Your task to perform on an android device: turn off smart reply in the gmail app Image 0: 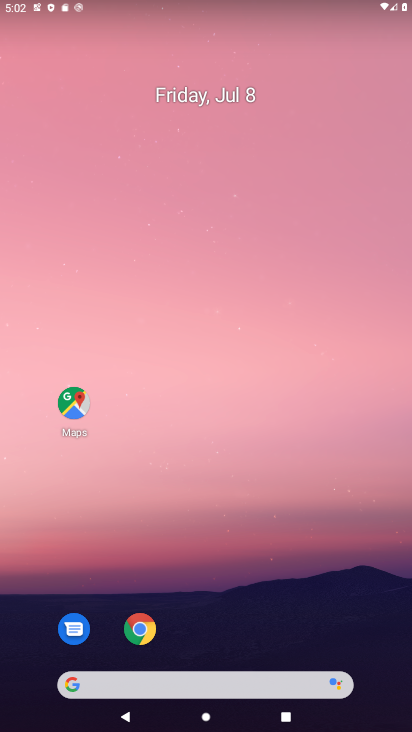
Step 0: press home button
Your task to perform on an android device: turn off smart reply in the gmail app Image 1: 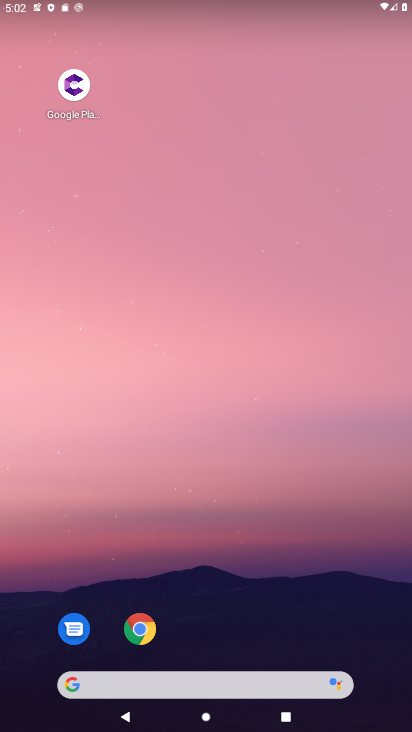
Step 1: drag from (255, 643) to (332, 109)
Your task to perform on an android device: turn off smart reply in the gmail app Image 2: 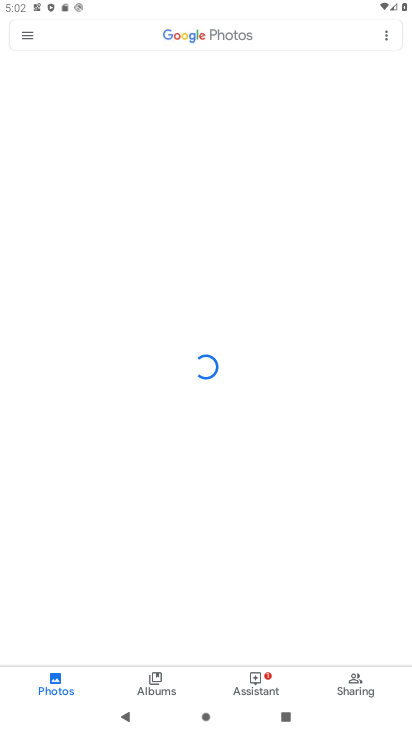
Step 2: press home button
Your task to perform on an android device: turn off smart reply in the gmail app Image 3: 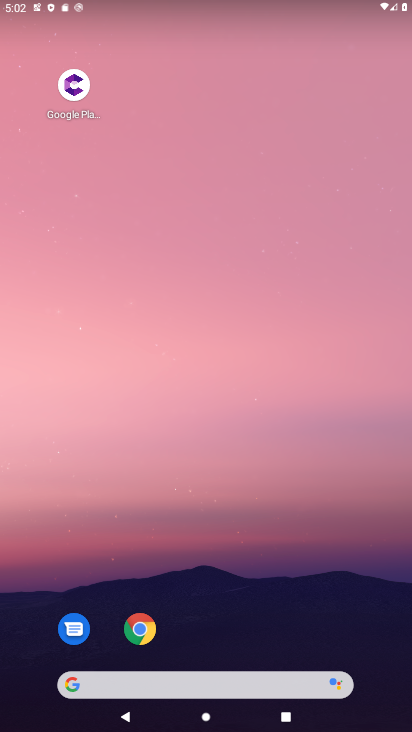
Step 3: drag from (209, 621) to (169, 34)
Your task to perform on an android device: turn off smart reply in the gmail app Image 4: 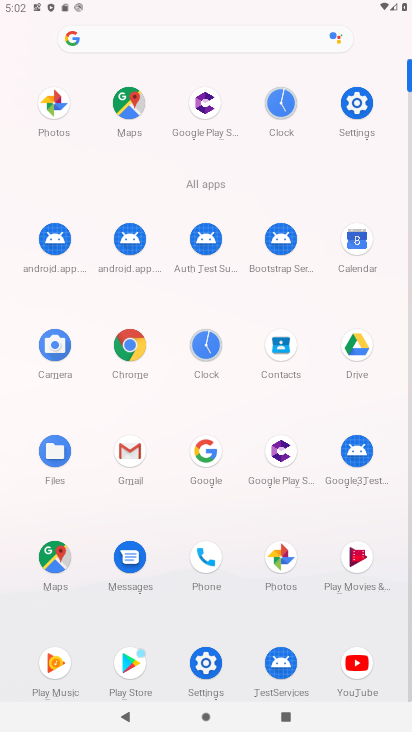
Step 4: click (132, 463)
Your task to perform on an android device: turn off smart reply in the gmail app Image 5: 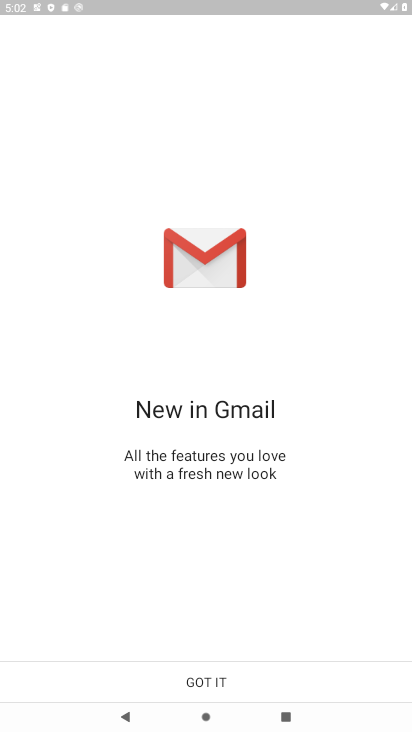
Step 5: click (194, 667)
Your task to perform on an android device: turn off smart reply in the gmail app Image 6: 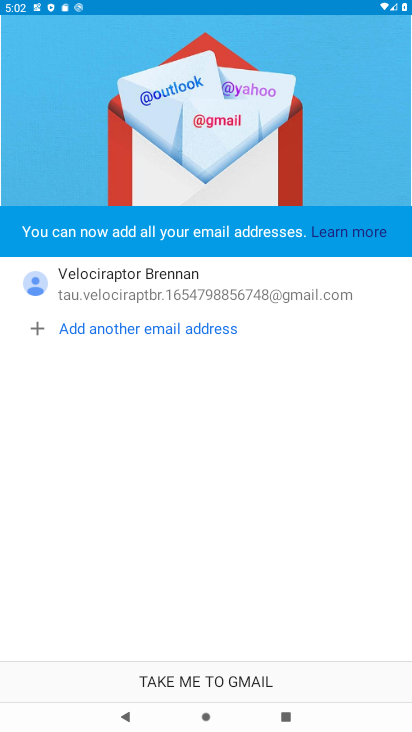
Step 6: click (209, 691)
Your task to perform on an android device: turn off smart reply in the gmail app Image 7: 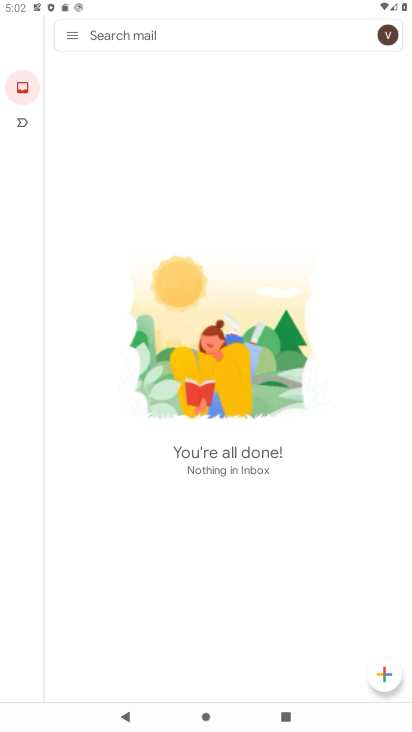
Step 7: click (64, 40)
Your task to perform on an android device: turn off smart reply in the gmail app Image 8: 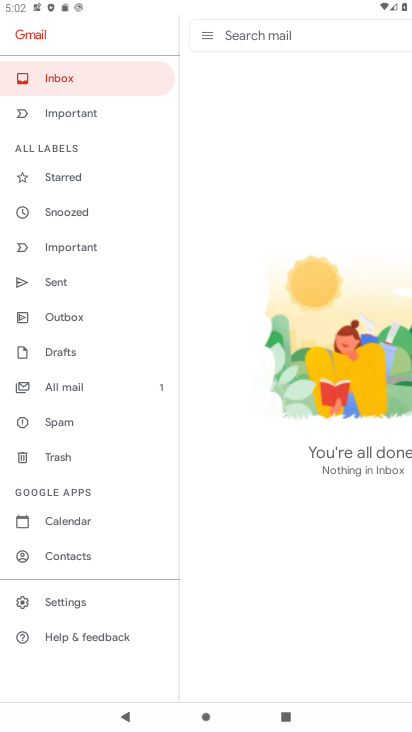
Step 8: click (74, 607)
Your task to perform on an android device: turn off smart reply in the gmail app Image 9: 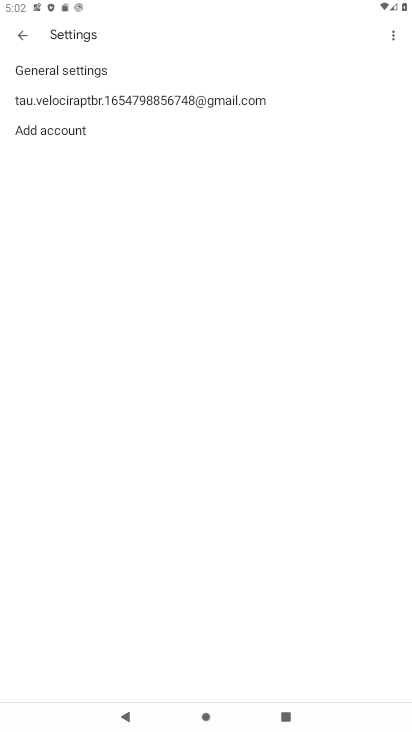
Step 9: click (79, 97)
Your task to perform on an android device: turn off smart reply in the gmail app Image 10: 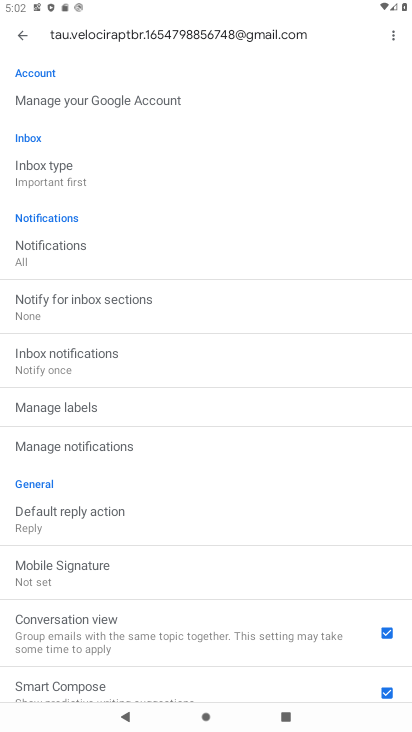
Step 10: drag from (228, 655) to (192, 310)
Your task to perform on an android device: turn off smart reply in the gmail app Image 11: 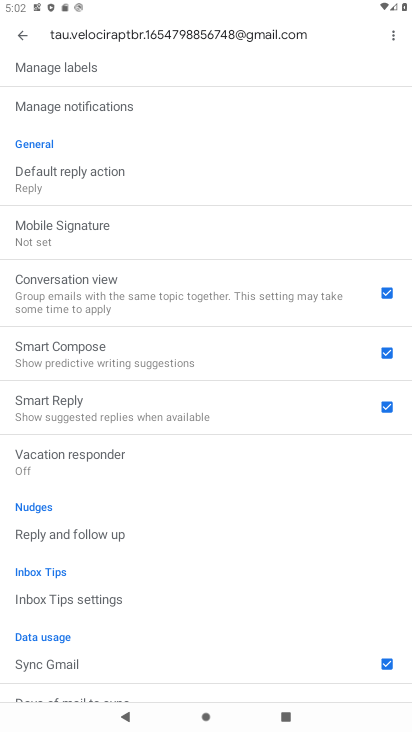
Step 11: click (386, 408)
Your task to perform on an android device: turn off smart reply in the gmail app Image 12: 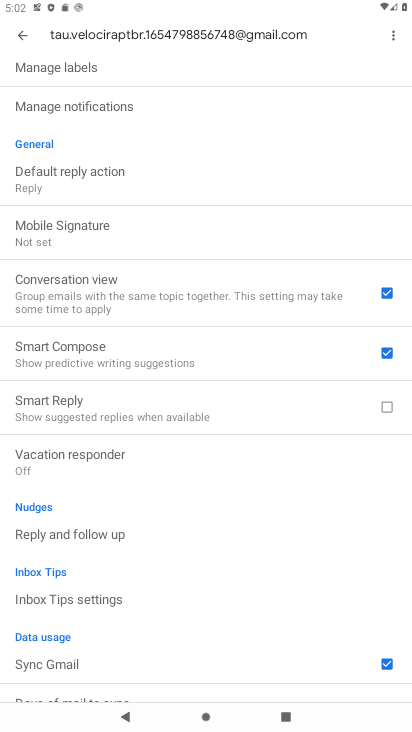
Step 12: task complete